Your task to perform on an android device: empty trash in google photos Image 0: 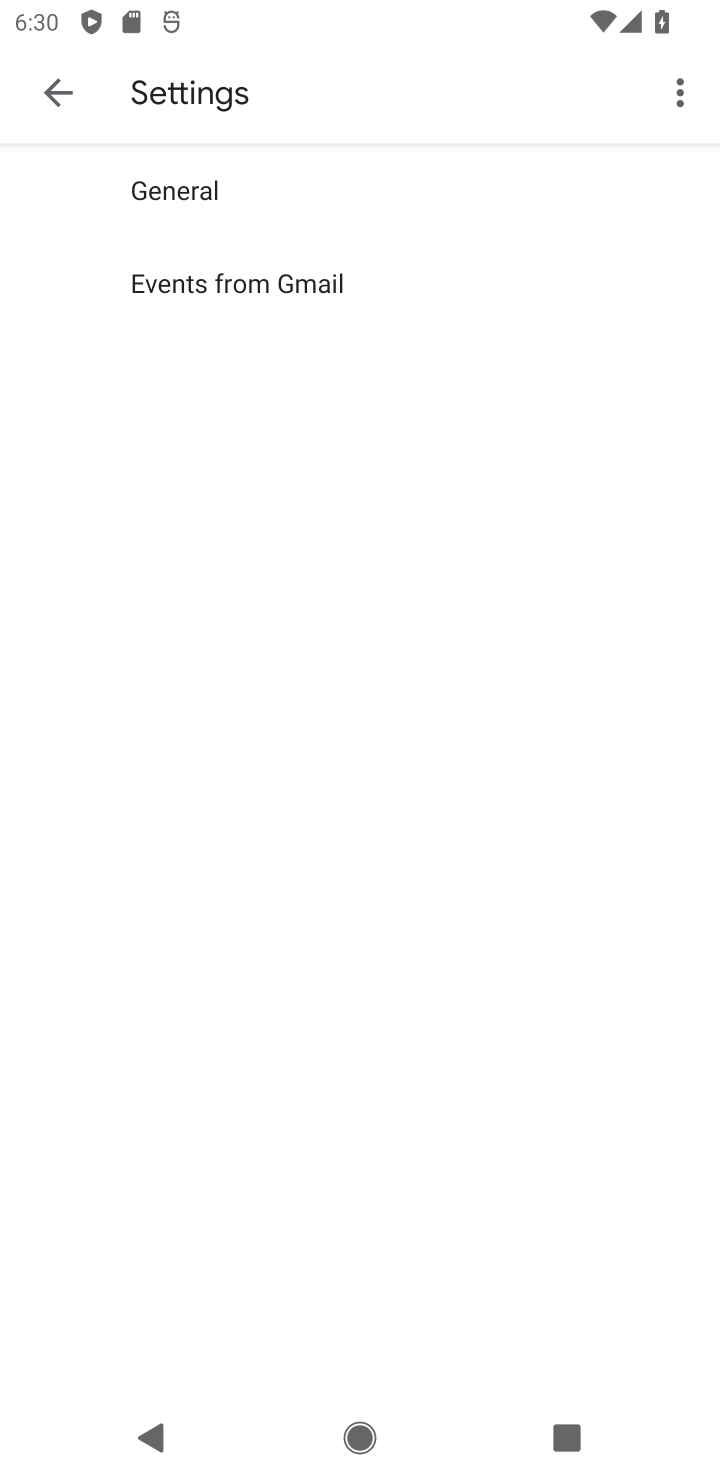
Step 0: press home button
Your task to perform on an android device: empty trash in google photos Image 1: 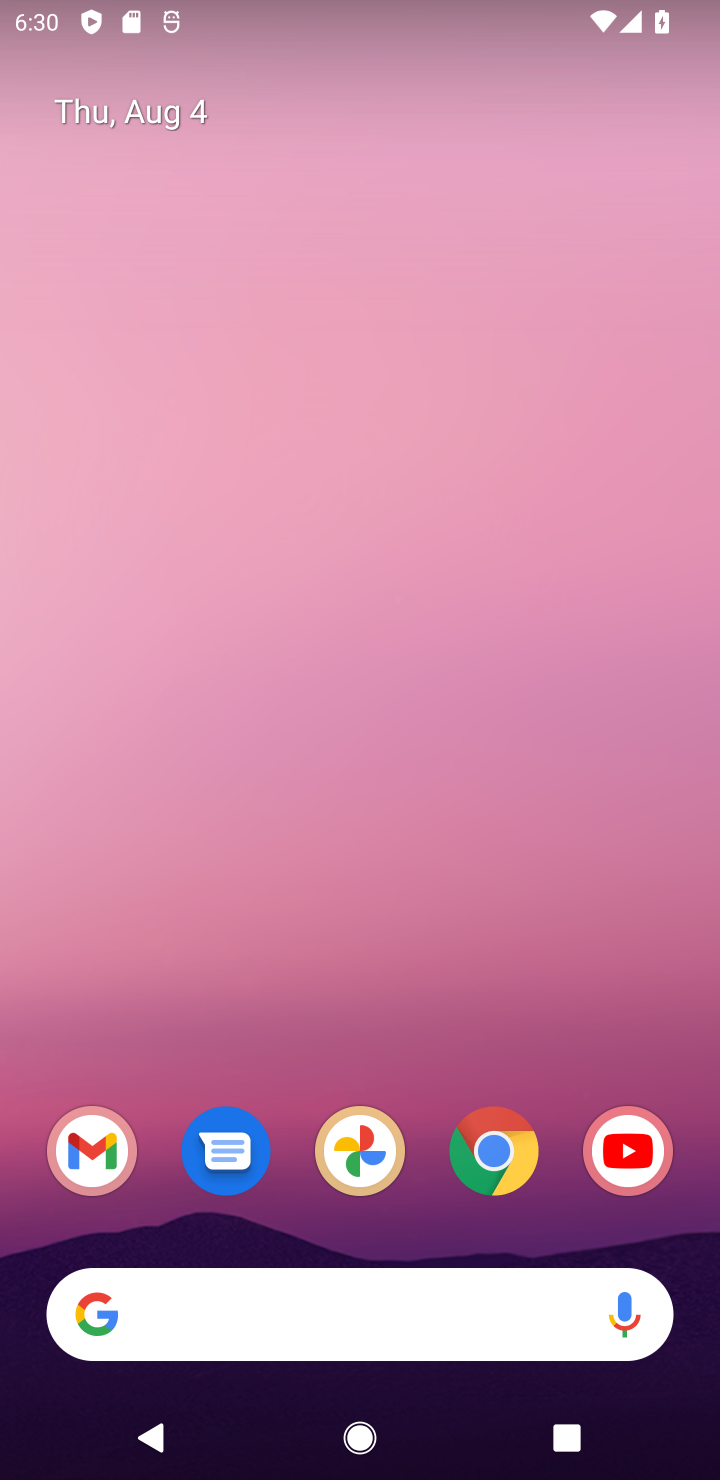
Step 1: click (368, 1174)
Your task to perform on an android device: empty trash in google photos Image 2: 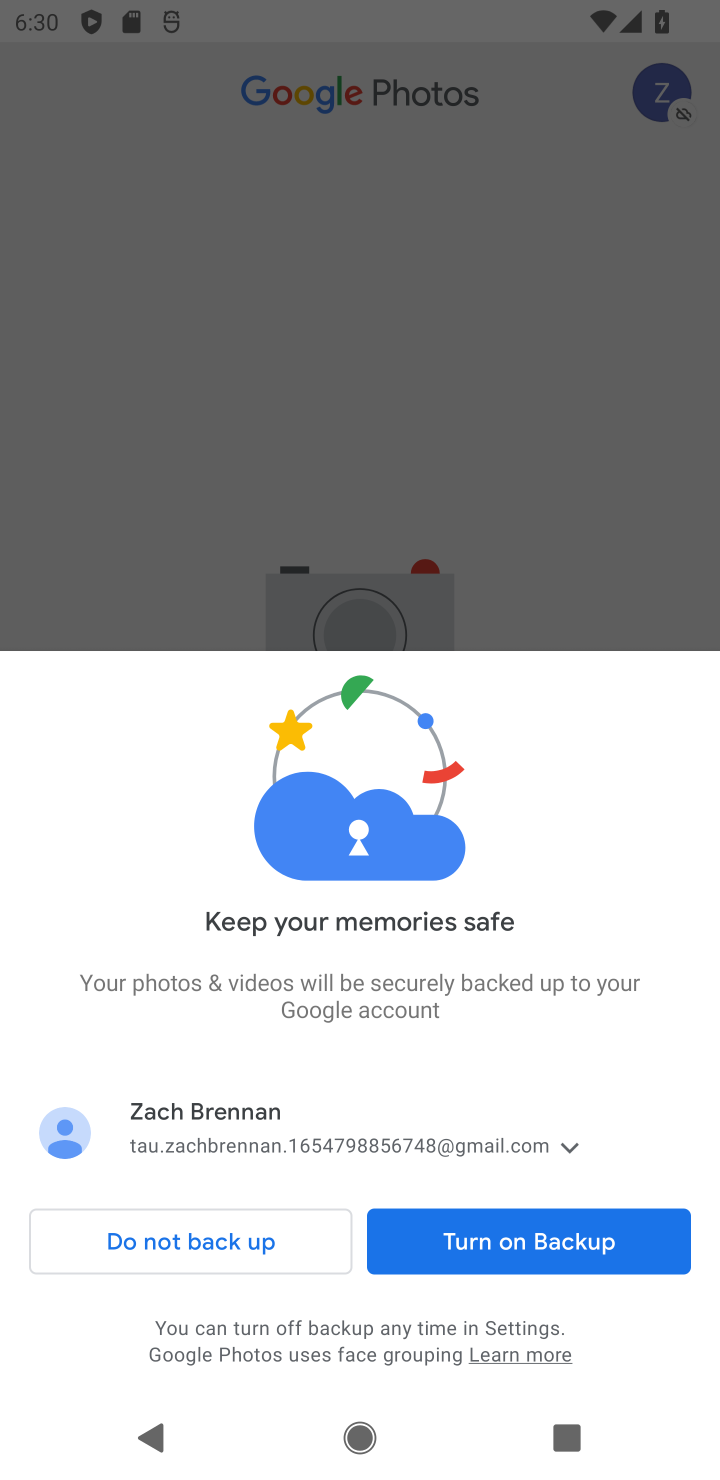
Step 2: click (229, 1229)
Your task to perform on an android device: empty trash in google photos Image 3: 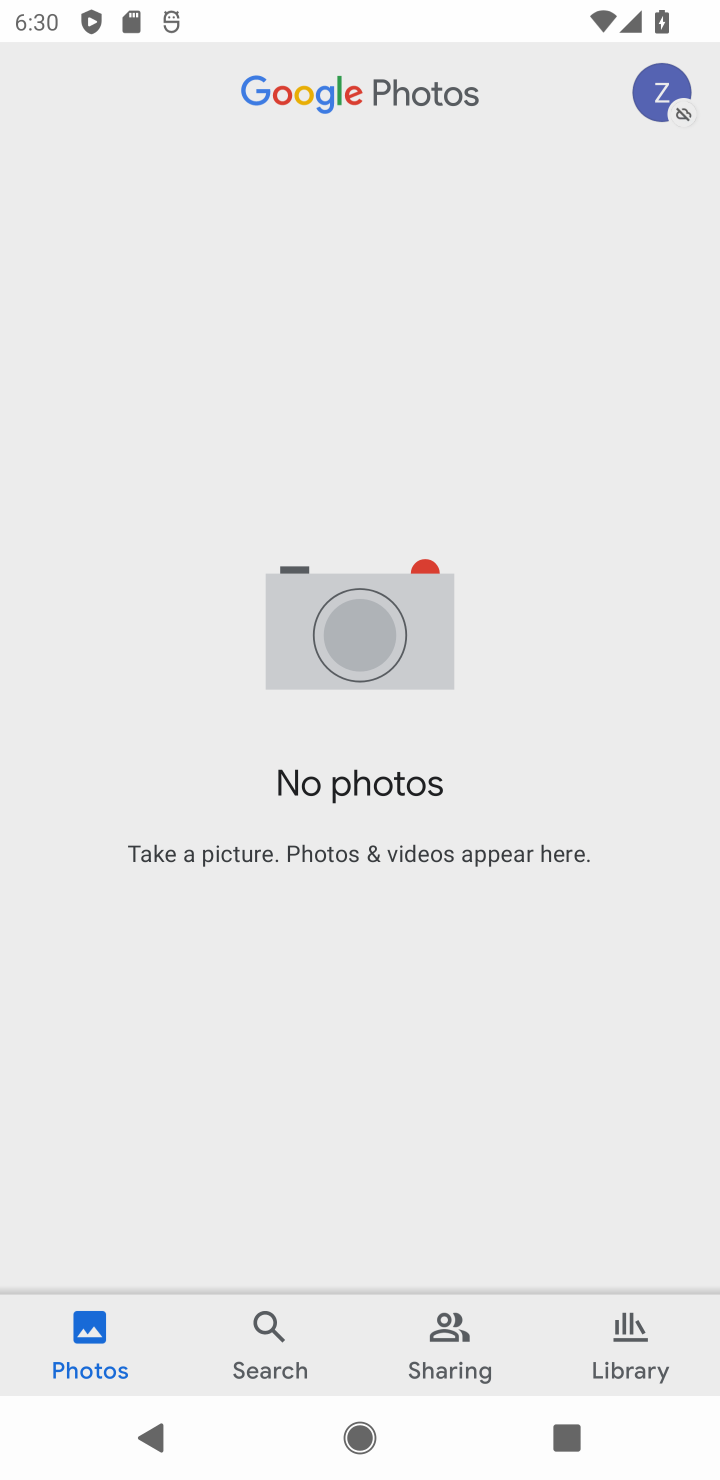
Step 3: click (630, 1344)
Your task to perform on an android device: empty trash in google photos Image 4: 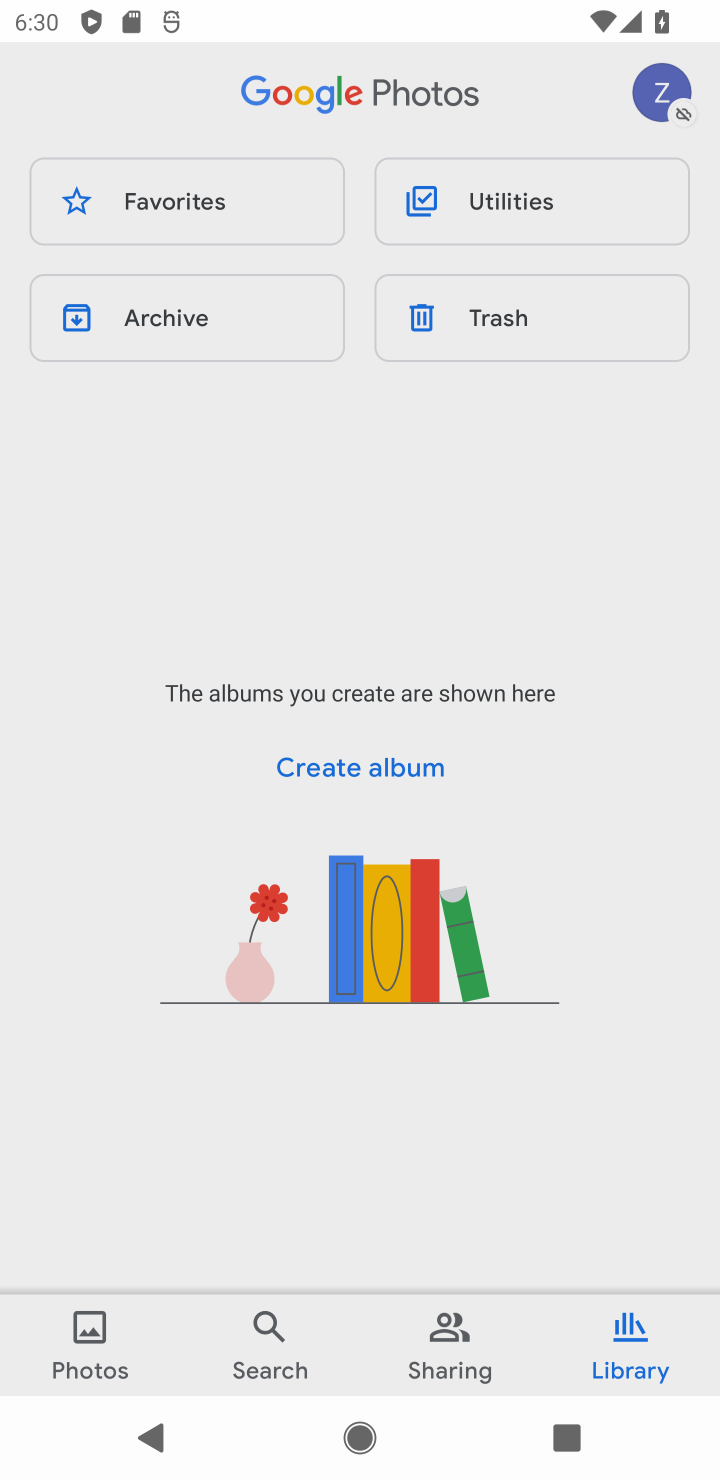
Step 4: click (554, 310)
Your task to perform on an android device: empty trash in google photos Image 5: 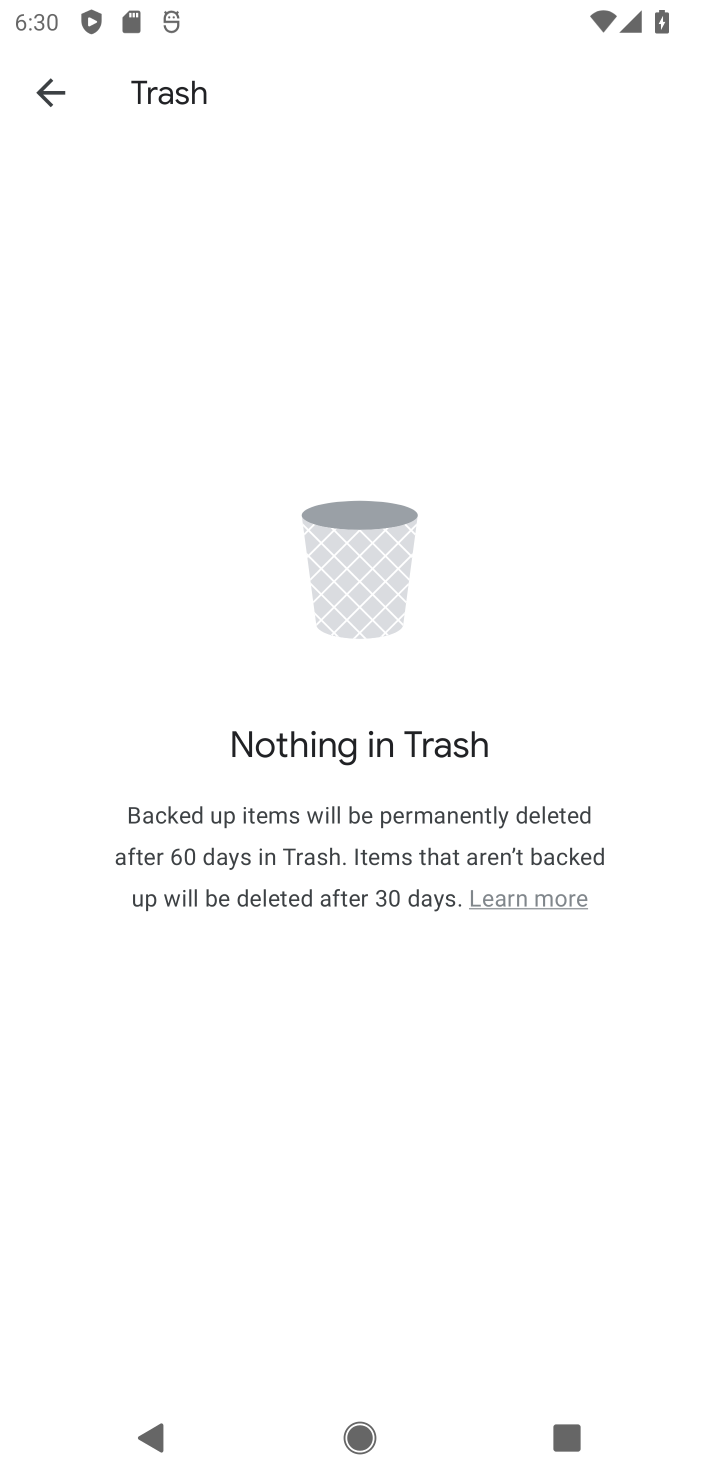
Step 5: task complete